Your task to perform on an android device: check storage Image 0: 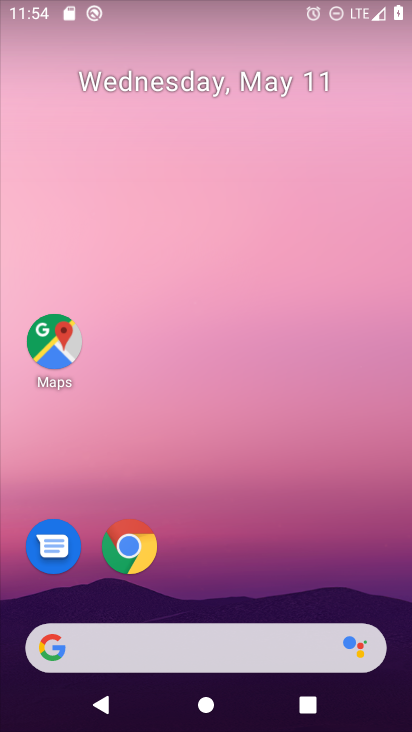
Step 0: drag from (397, 630) to (270, 129)
Your task to perform on an android device: check storage Image 1: 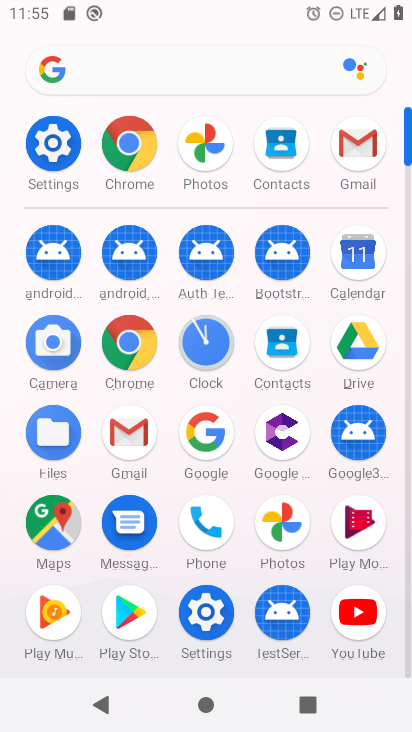
Step 1: click (191, 601)
Your task to perform on an android device: check storage Image 2: 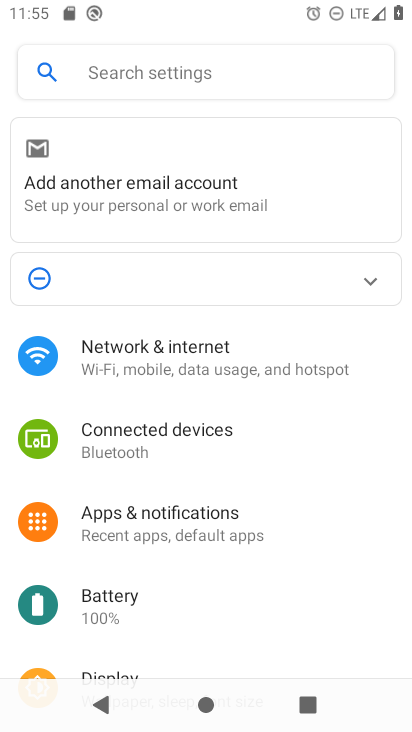
Step 2: drag from (191, 601) to (201, 33)
Your task to perform on an android device: check storage Image 3: 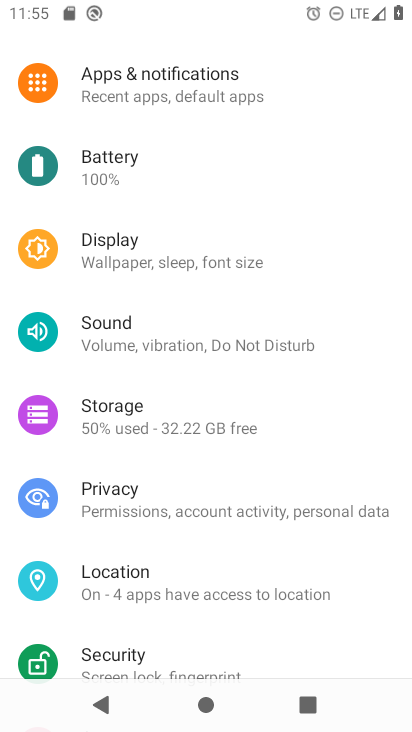
Step 3: click (138, 433)
Your task to perform on an android device: check storage Image 4: 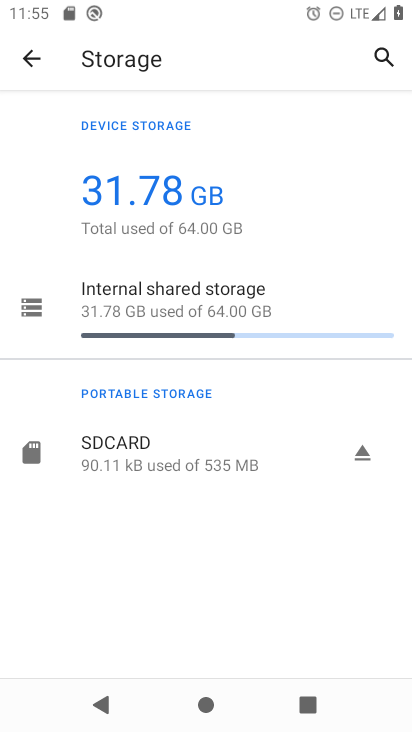
Step 4: click (196, 297)
Your task to perform on an android device: check storage Image 5: 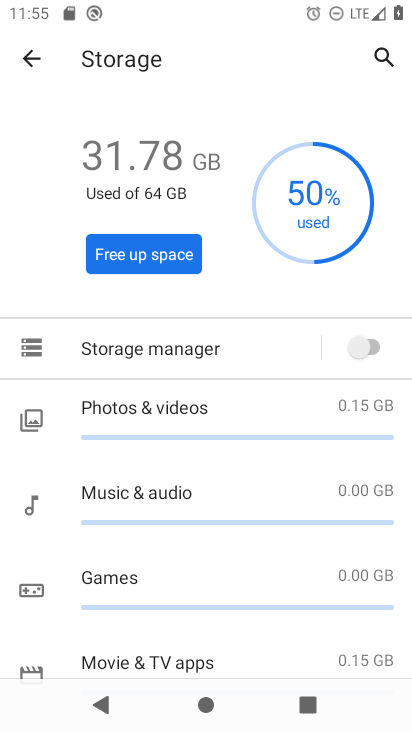
Step 5: task complete